Your task to perform on an android device: Open settings on Google Maps Image 0: 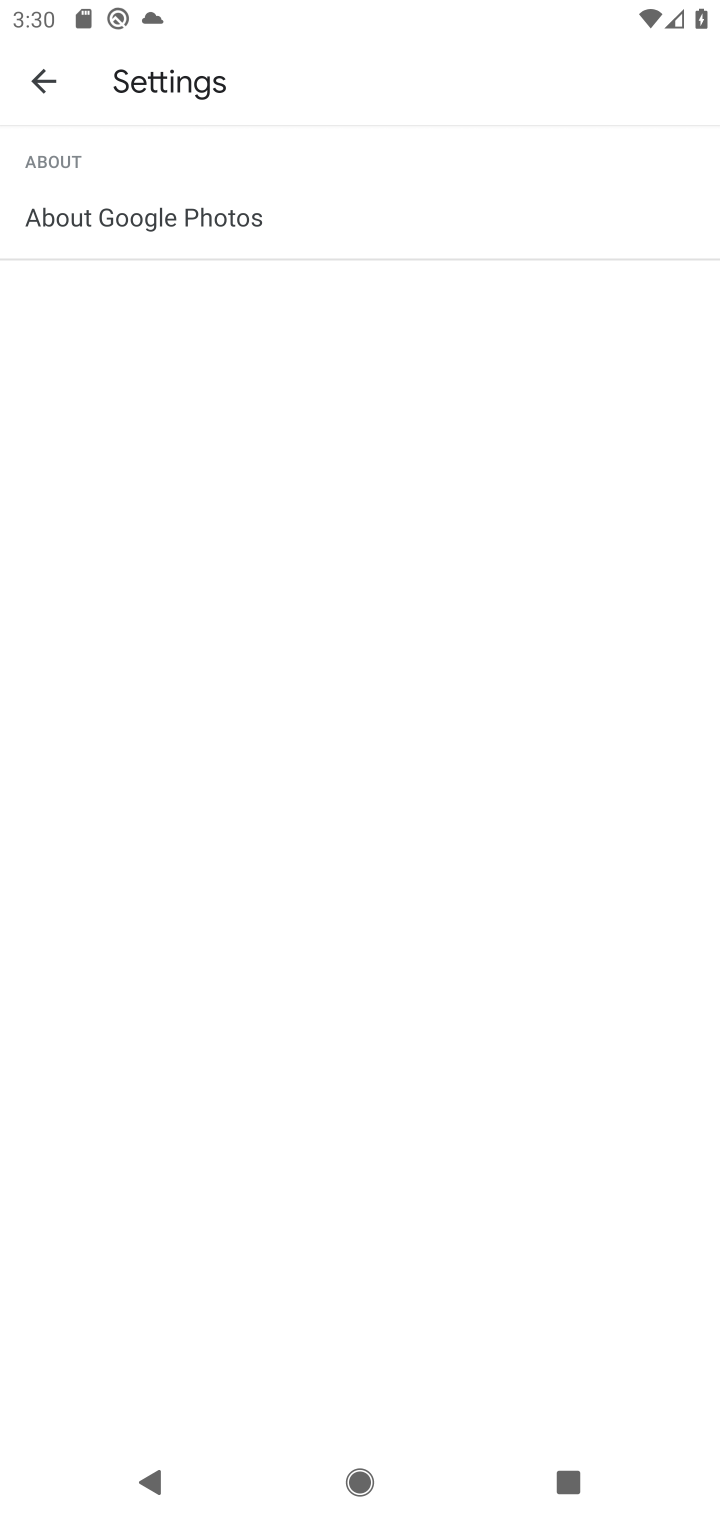
Step 0: press home button
Your task to perform on an android device: Open settings on Google Maps Image 1: 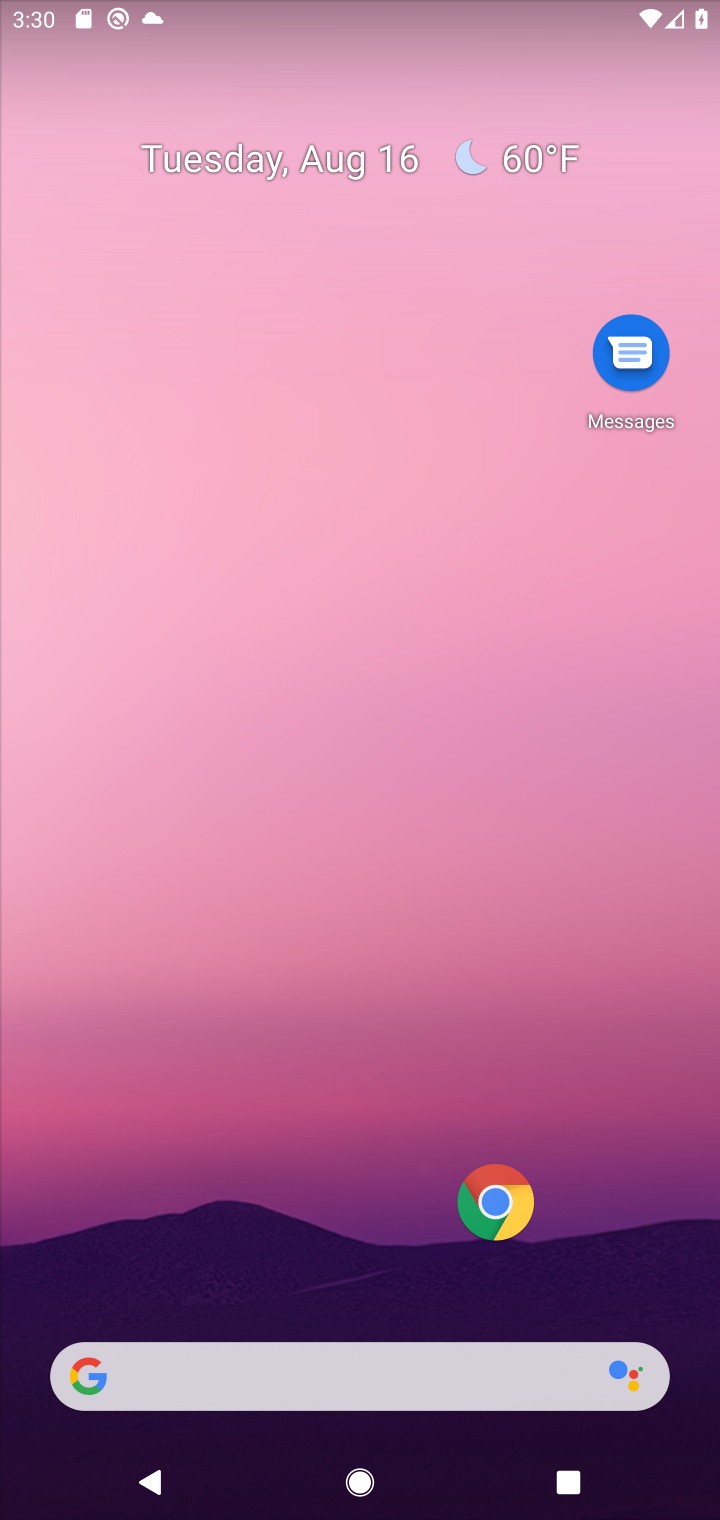
Step 1: drag from (284, 466) to (354, 233)
Your task to perform on an android device: Open settings on Google Maps Image 2: 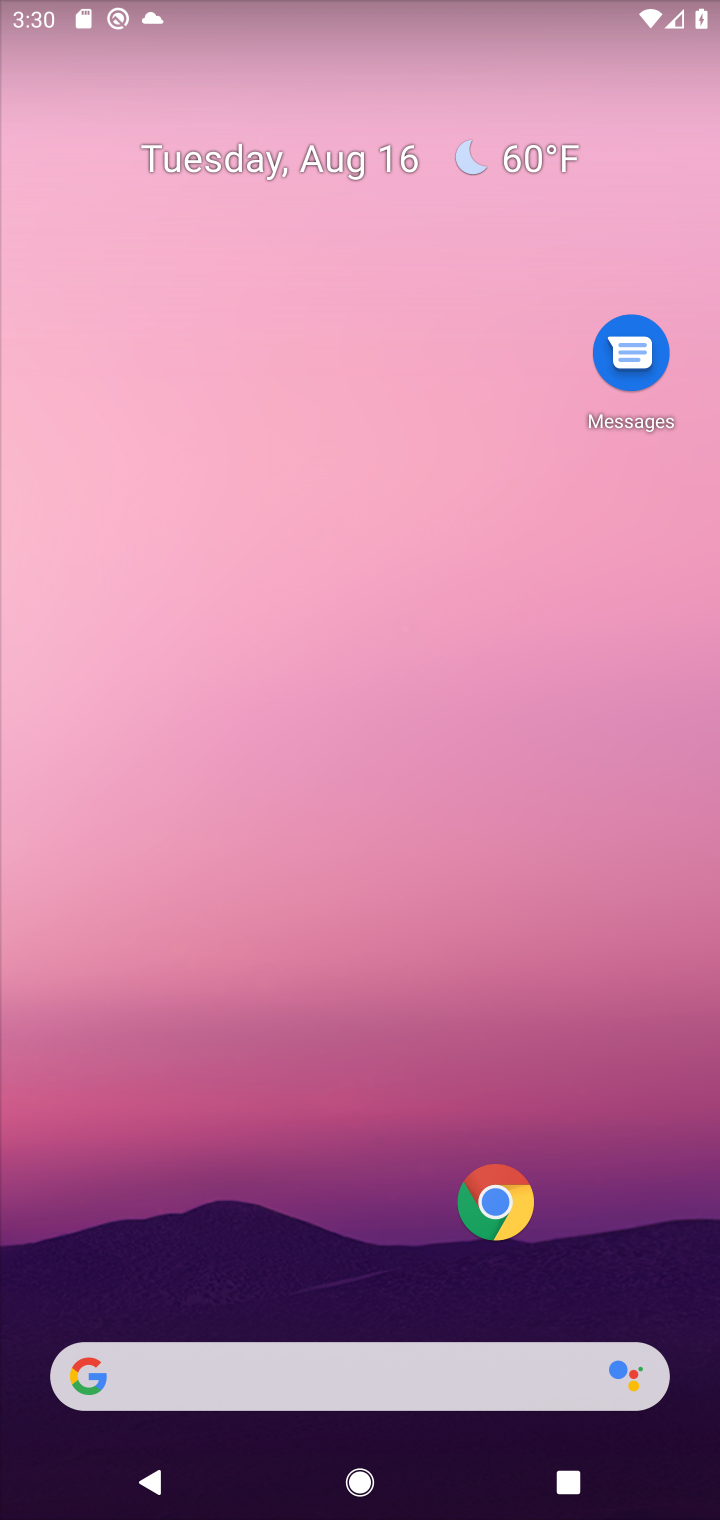
Step 2: drag from (110, 1229) to (405, 55)
Your task to perform on an android device: Open settings on Google Maps Image 3: 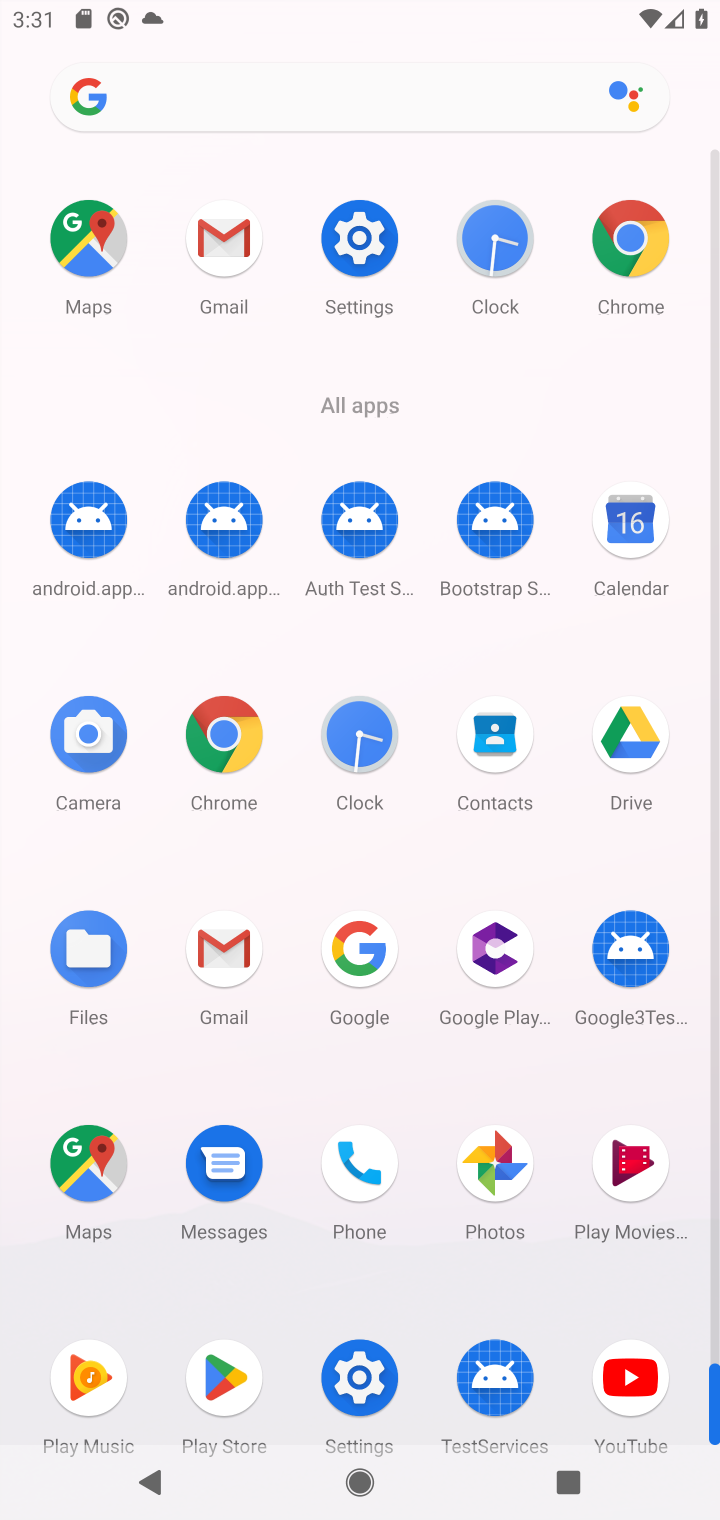
Step 3: click (78, 1176)
Your task to perform on an android device: Open settings on Google Maps Image 4: 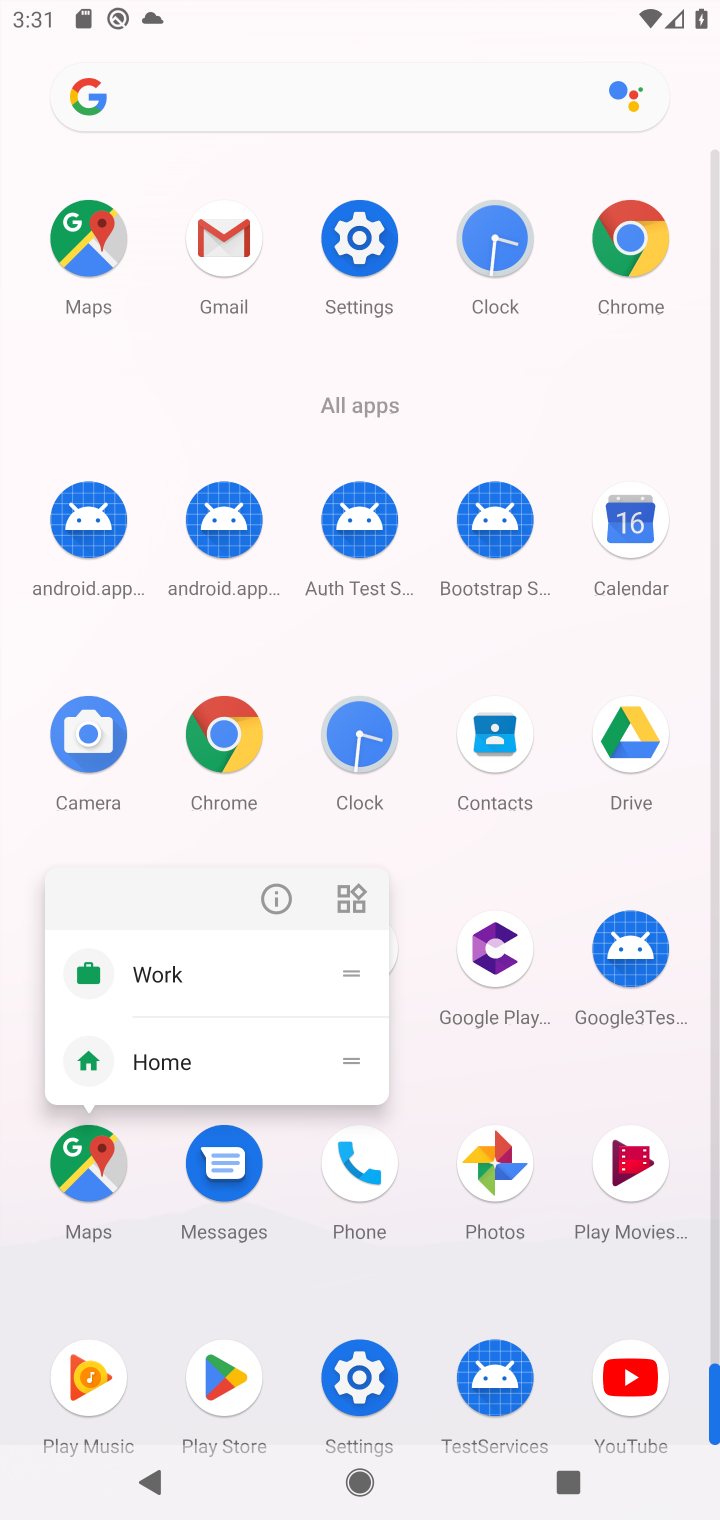
Step 4: click (52, 1142)
Your task to perform on an android device: Open settings on Google Maps Image 5: 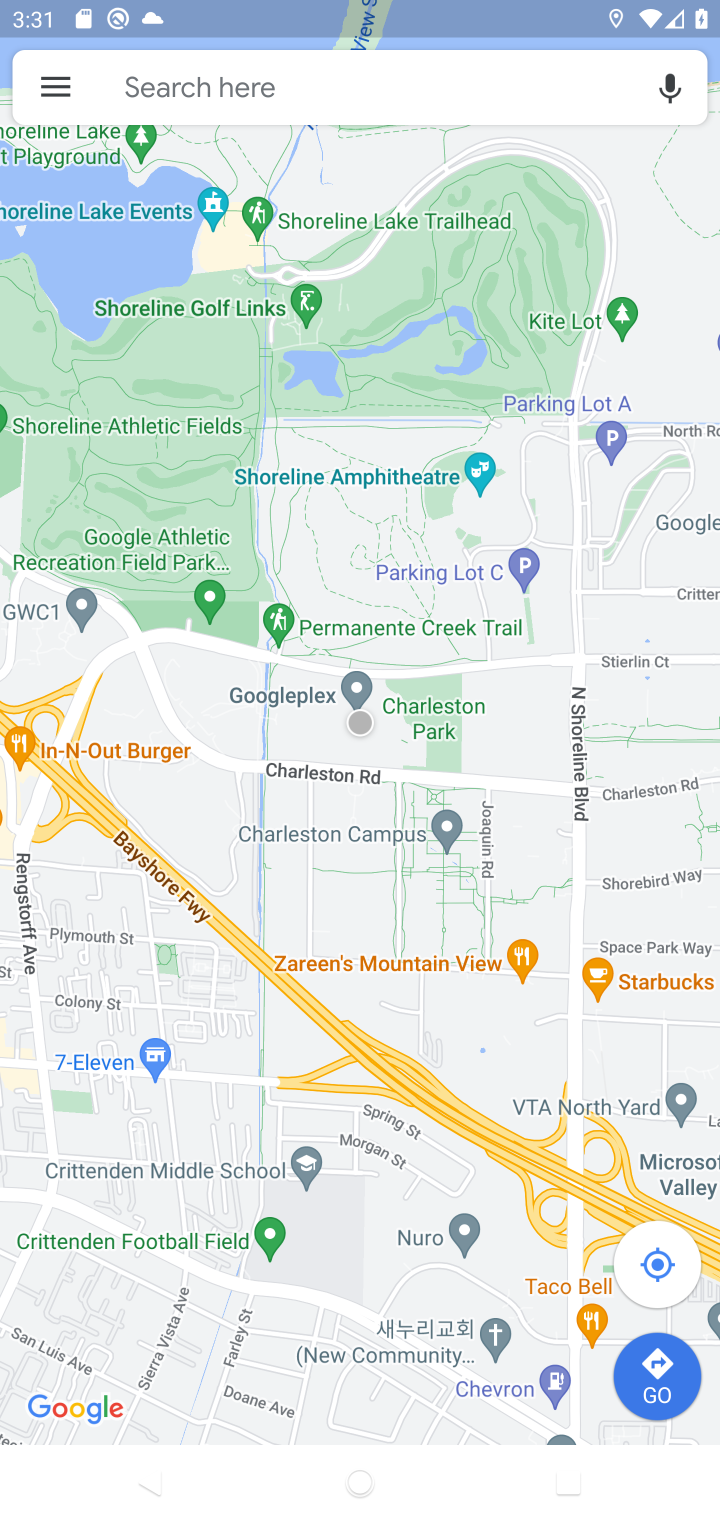
Step 5: click (50, 97)
Your task to perform on an android device: Open settings on Google Maps Image 6: 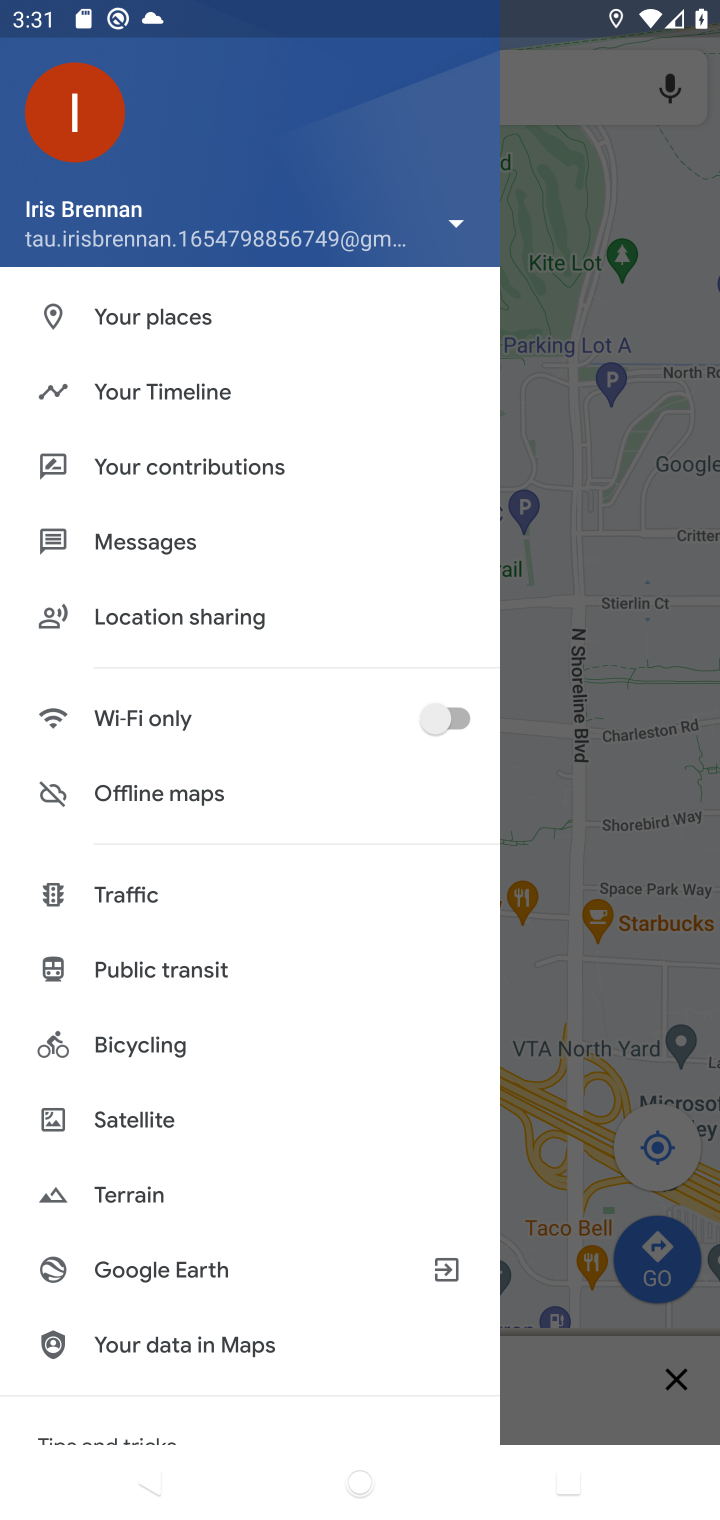
Step 6: drag from (79, 1037) to (290, 222)
Your task to perform on an android device: Open settings on Google Maps Image 7: 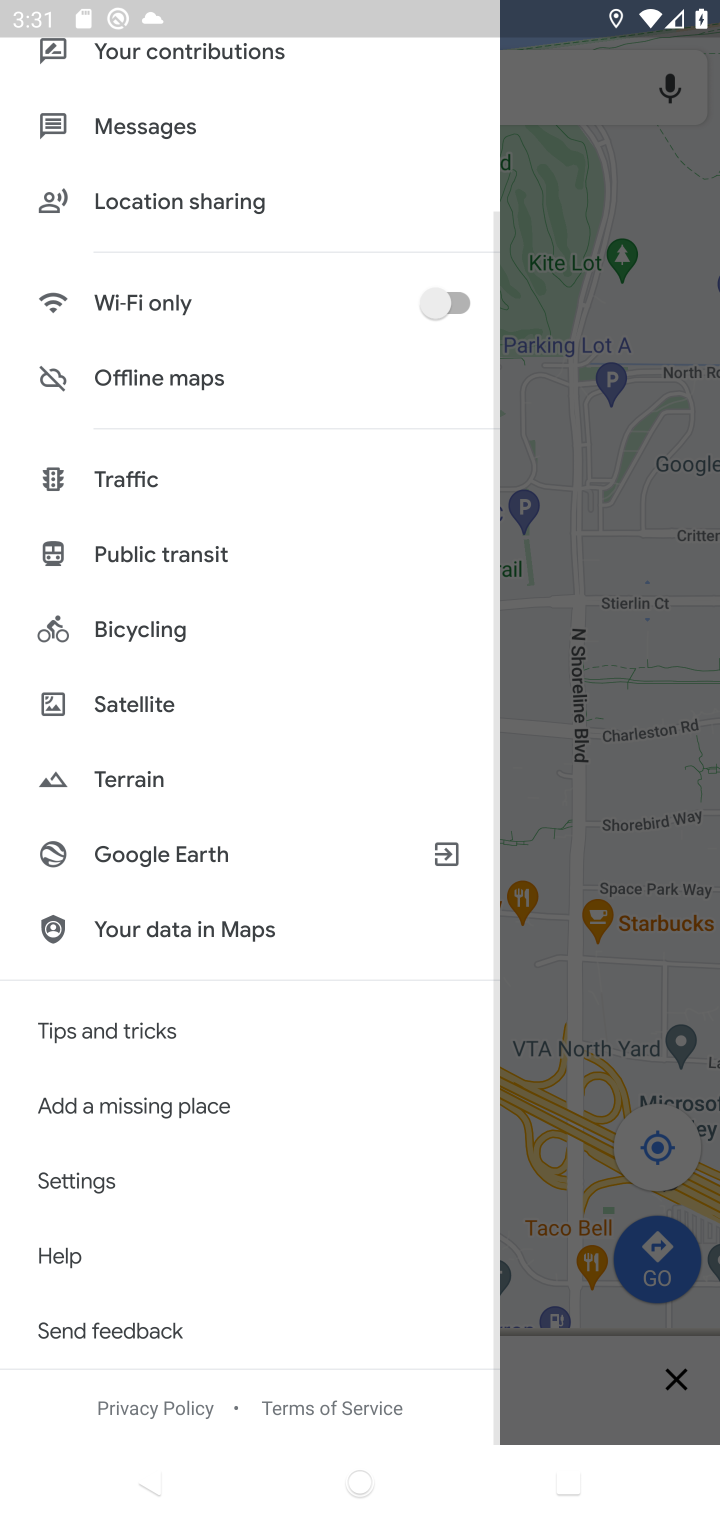
Step 7: click (87, 1179)
Your task to perform on an android device: Open settings on Google Maps Image 8: 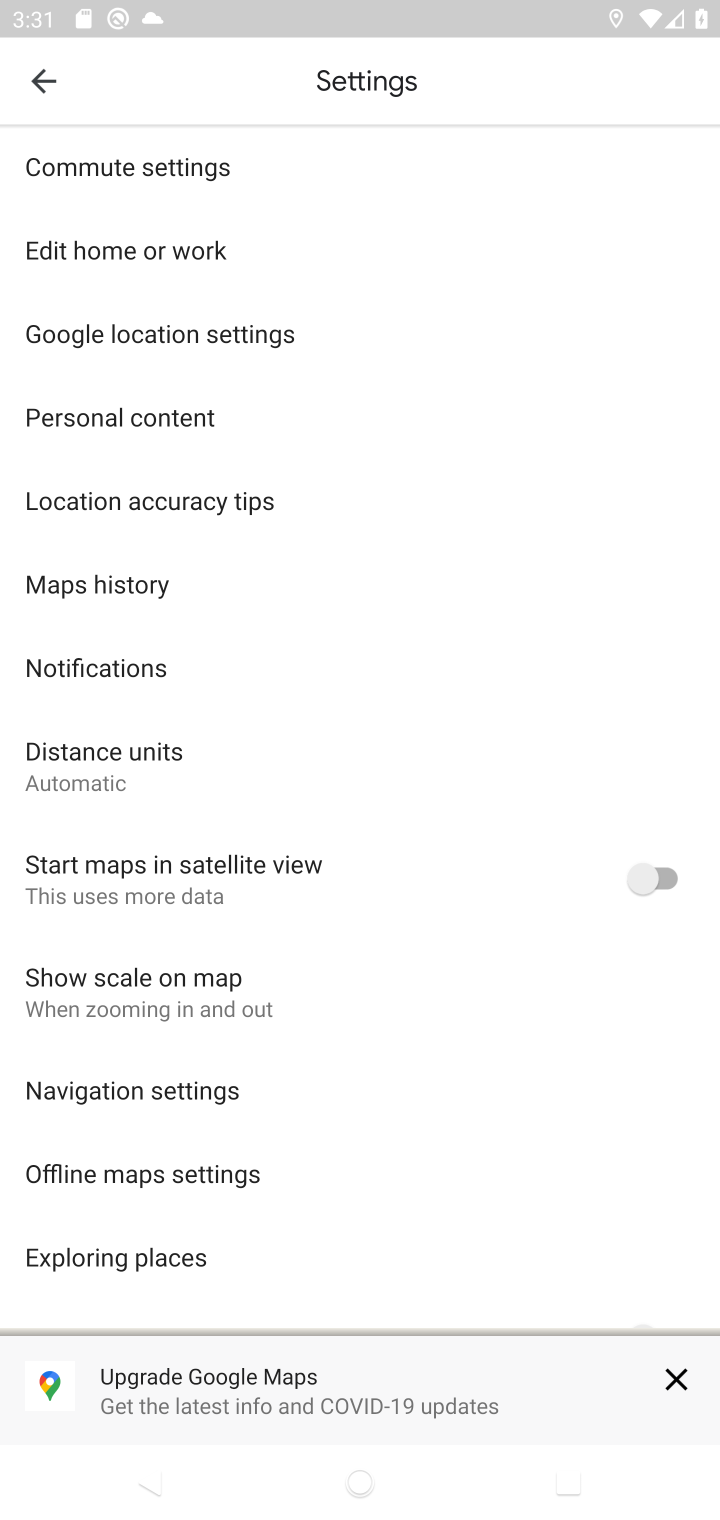
Step 8: click (679, 1374)
Your task to perform on an android device: Open settings on Google Maps Image 9: 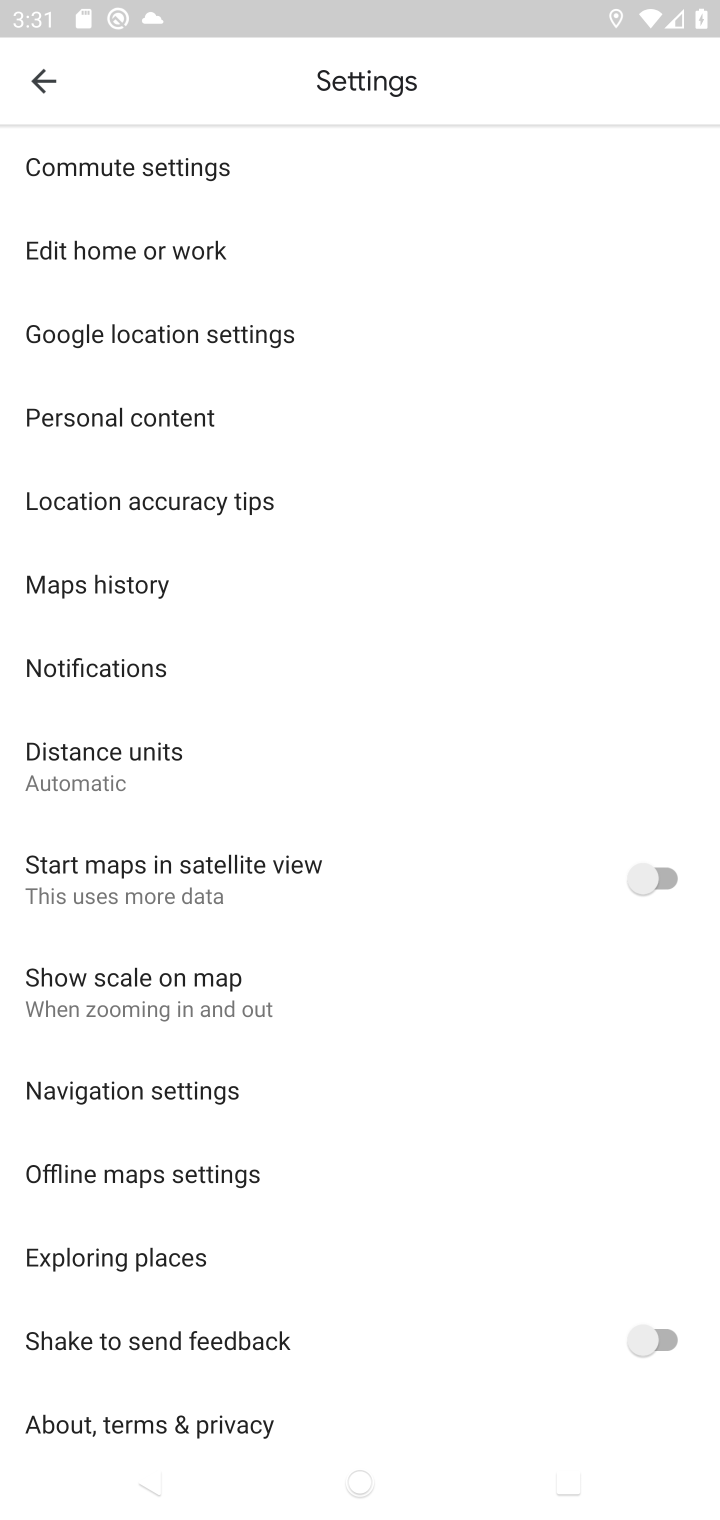
Step 9: task complete